Your task to perform on an android device: change notifications settings Image 0: 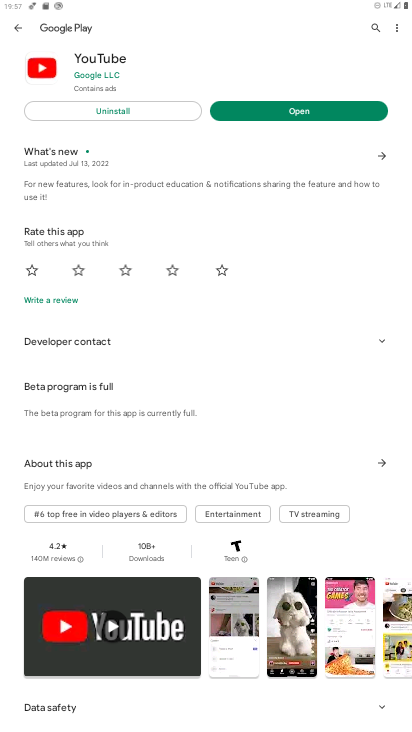
Step 0: press home button
Your task to perform on an android device: change notifications settings Image 1: 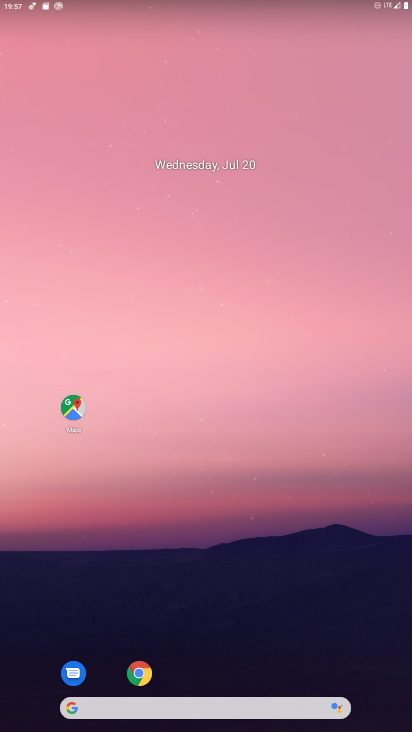
Step 1: drag from (184, 484) to (240, 29)
Your task to perform on an android device: change notifications settings Image 2: 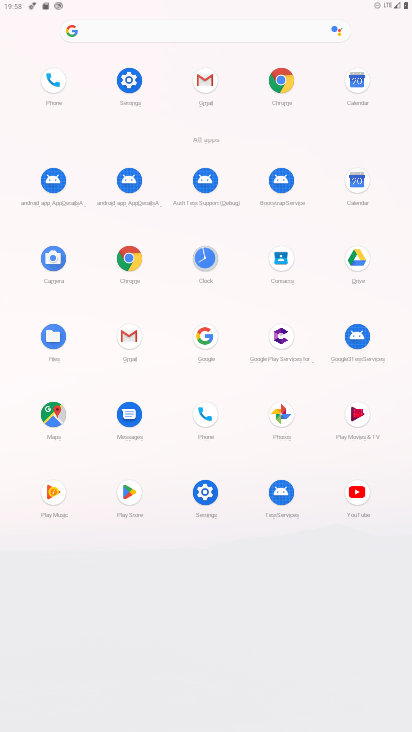
Step 2: click (130, 78)
Your task to perform on an android device: change notifications settings Image 3: 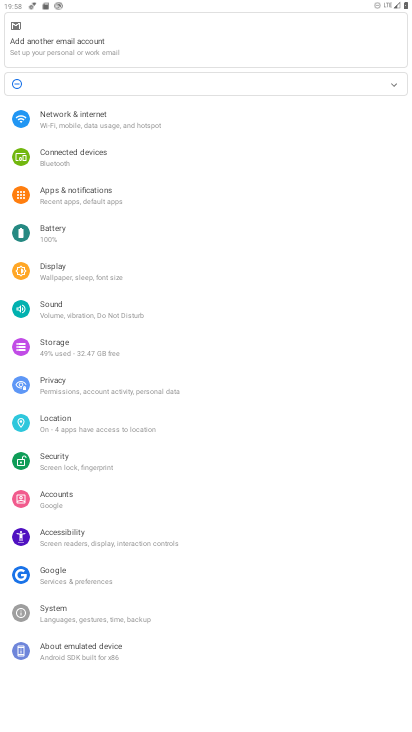
Step 3: click (98, 196)
Your task to perform on an android device: change notifications settings Image 4: 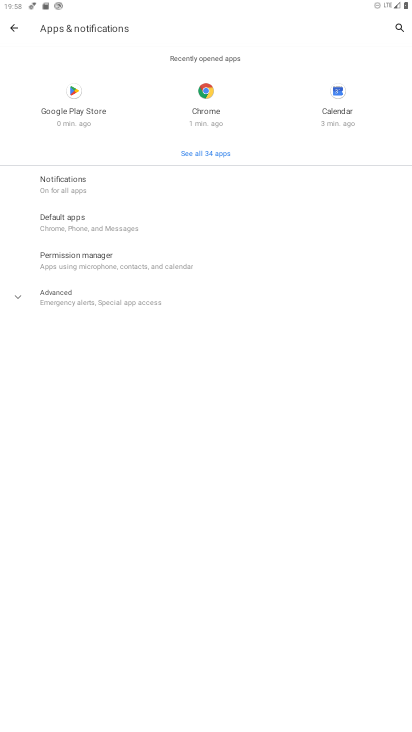
Step 4: click (66, 178)
Your task to perform on an android device: change notifications settings Image 5: 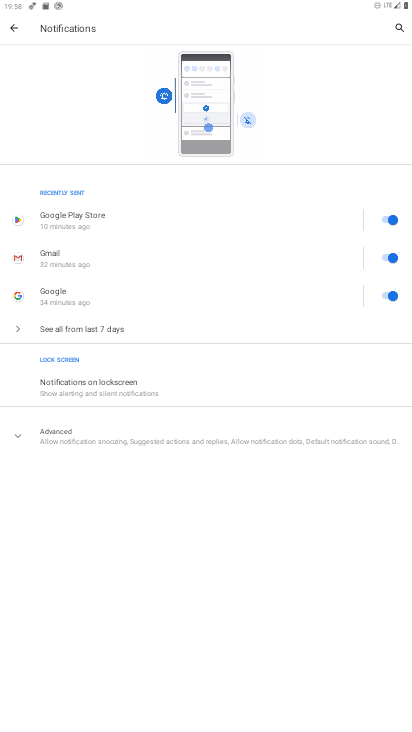
Step 5: click (84, 442)
Your task to perform on an android device: change notifications settings Image 6: 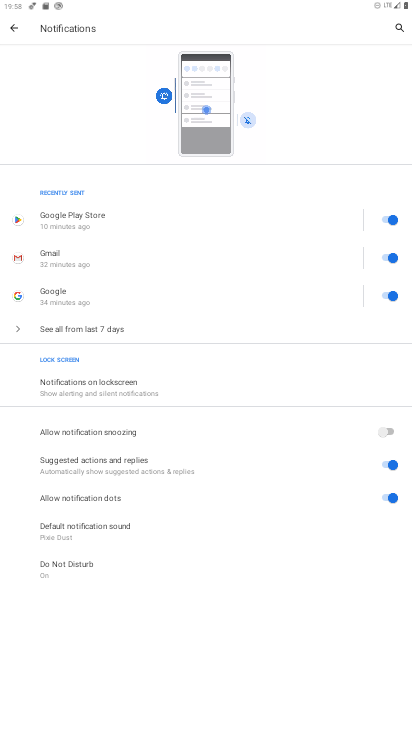
Step 6: click (78, 333)
Your task to perform on an android device: change notifications settings Image 7: 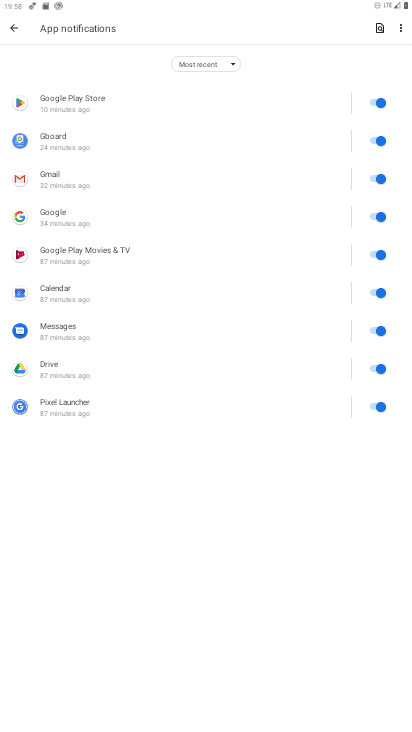
Step 7: click (372, 109)
Your task to perform on an android device: change notifications settings Image 8: 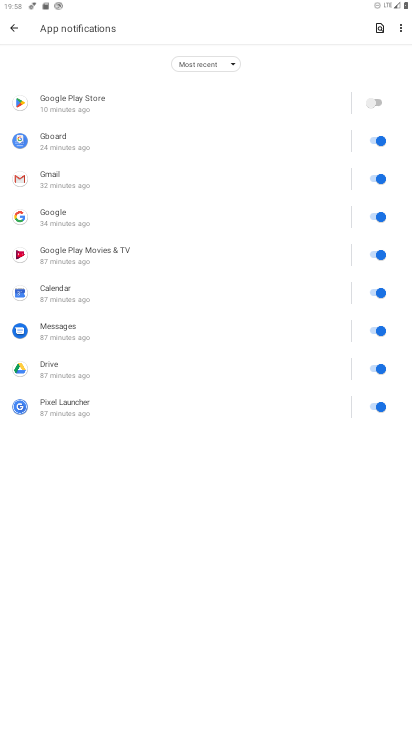
Step 8: task complete